Your task to perform on an android device: open chrome privacy settings Image 0: 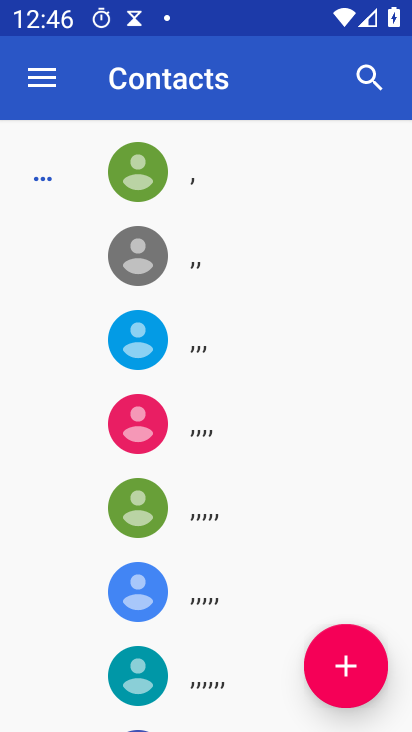
Step 0: press home button
Your task to perform on an android device: open chrome privacy settings Image 1: 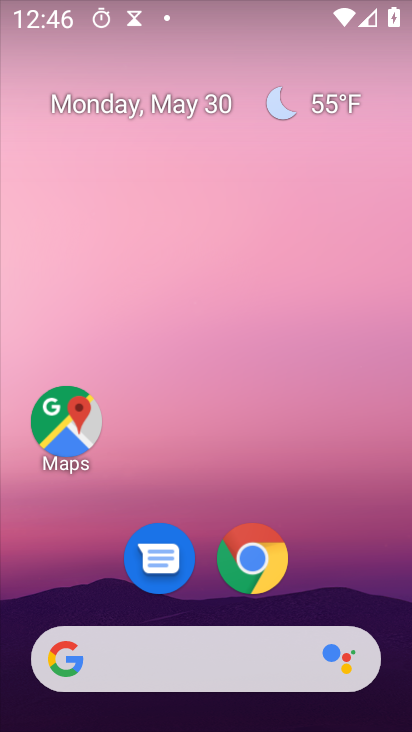
Step 1: drag from (359, 566) to (398, 96)
Your task to perform on an android device: open chrome privacy settings Image 2: 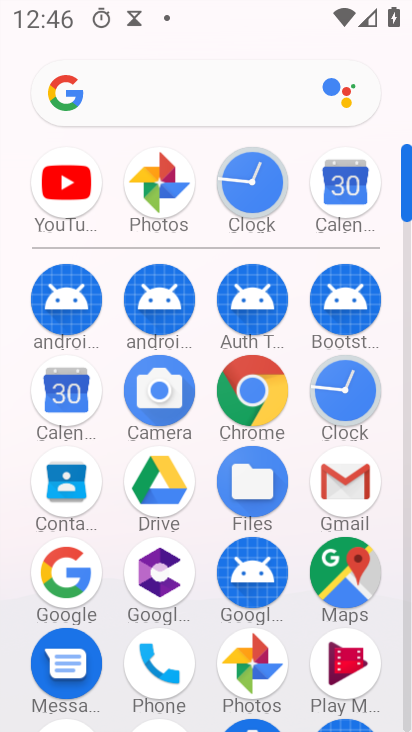
Step 2: click (268, 389)
Your task to perform on an android device: open chrome privacy settings Image 3: 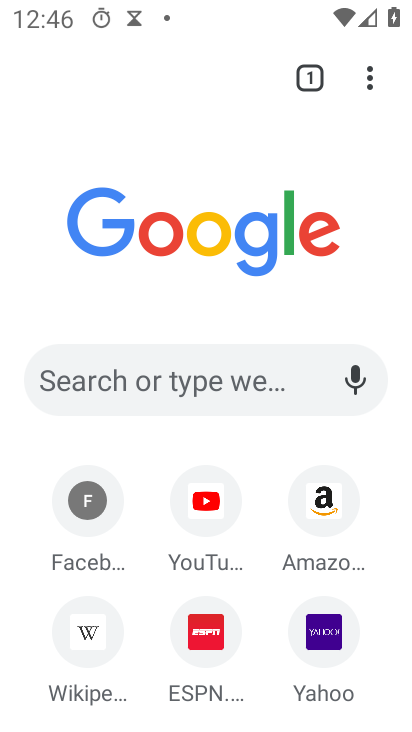
Step 3: drag from (350, 82) to (177, 633)
Your task to perform on an android device: open chrome privacy settings Image 4: 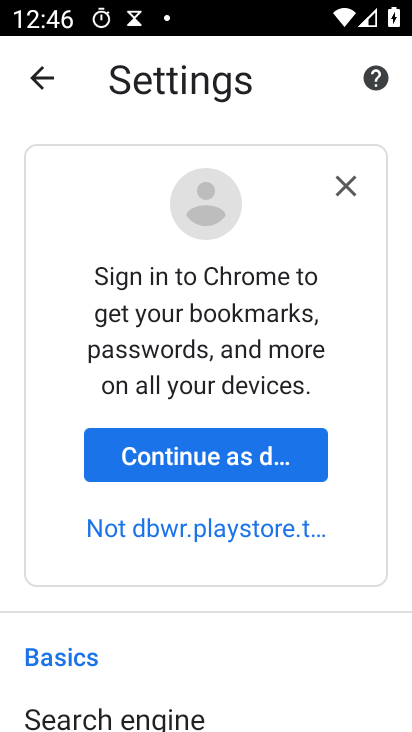
Step 4: drag from (185, 637) to (238, 161)
Your task to perform on an android device: open chrome privacy settings Image 5: 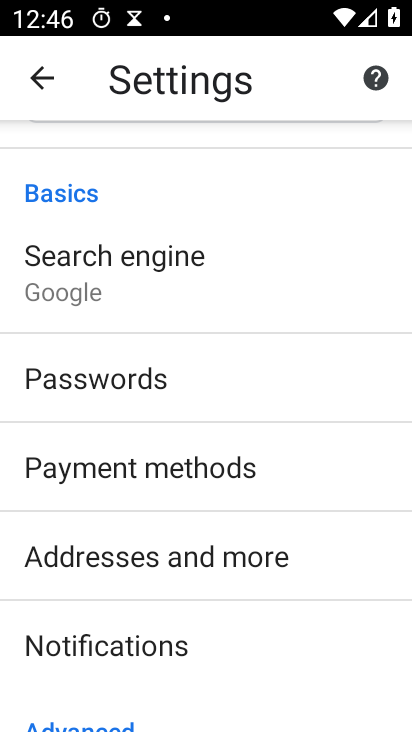
Step 5: drag from (137, 635) to (188, 185)
Your task to perform on an android device: open chrome privacy settings Image 6: 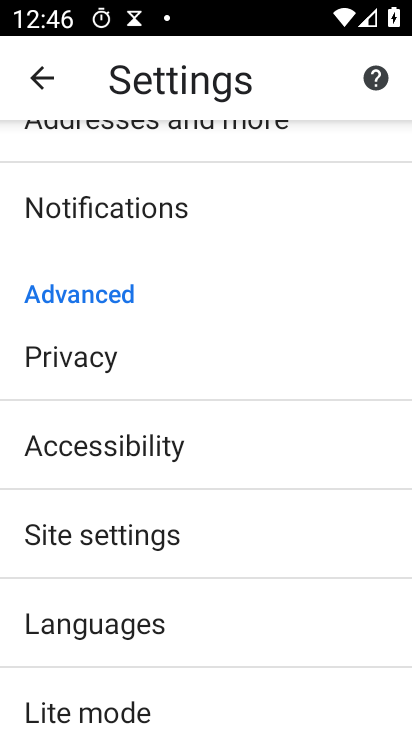
Step 6: click (76, 345)
Your task to perform on an android device: open chrome privacy settings Image 7: 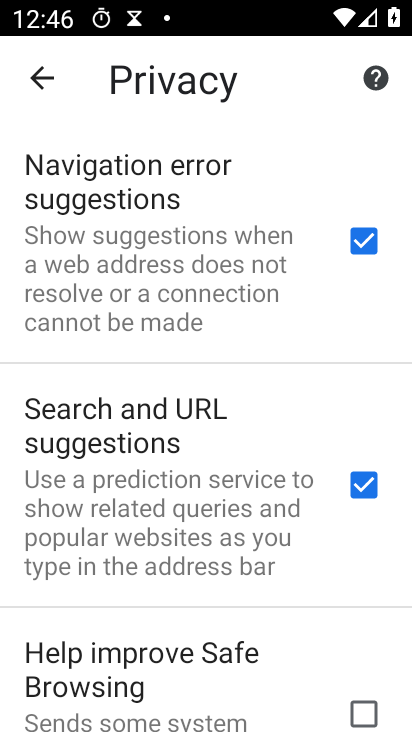
Step 7: task complete